Your task to perform on an android device: delete location history Image 0: 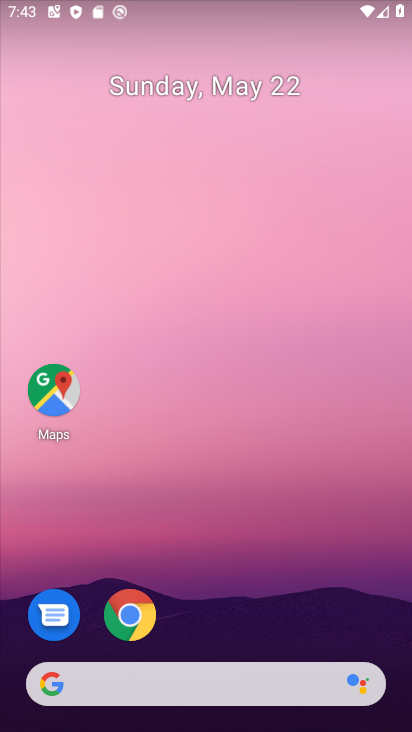
Step 0: drag from (243, 643) to (160, 3)
Your task to perform on an android device: delete location history Image 1: 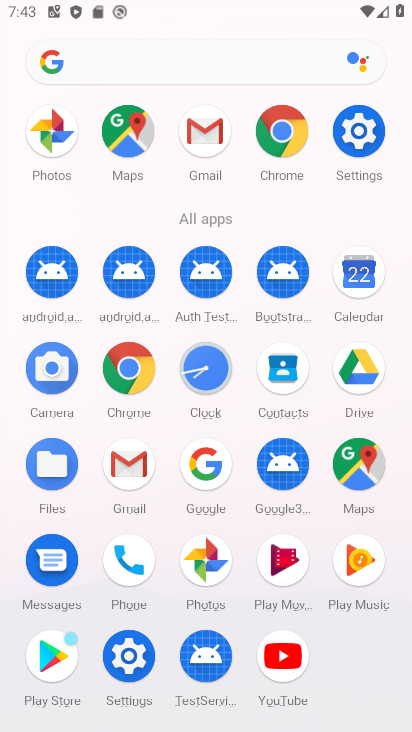
Step 1: click (358, 464)
Your task to perform on an android device: delete location history Image 2: 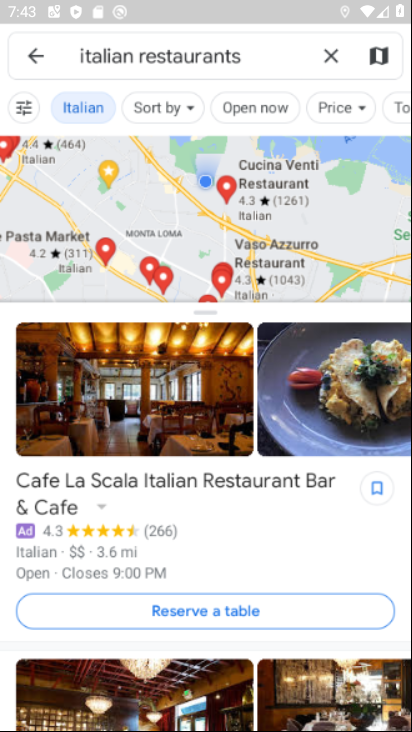
Step 2: click (25, 61)
Your task to perform on an android device: delete location history Image 3: 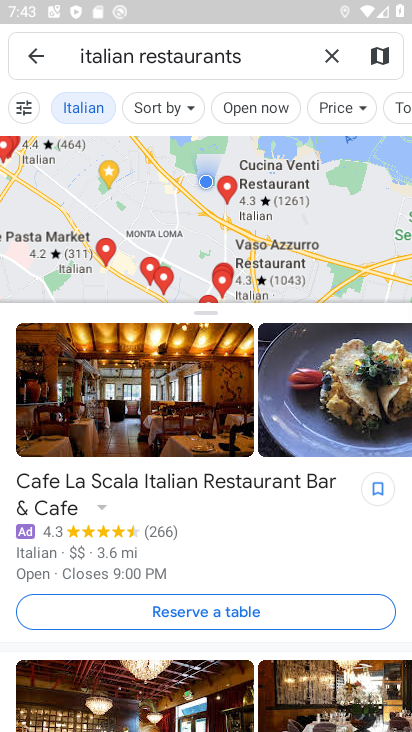
Step 3: click (34, 53)
Your task to perform on an android device: delete location history Image 4: 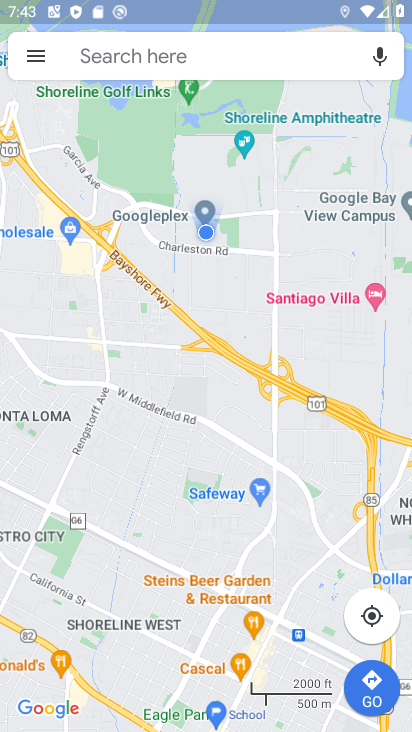
Step 4: click (34, 53)
Your task to perform on an android device: delete location history Image 5: 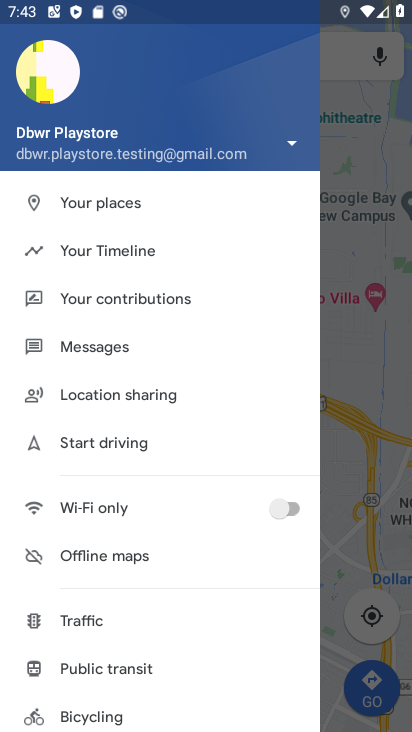
Step 5: drag from (192, 552) to (117, 234)
Your task to perform on an android device: delete location history Image 6: 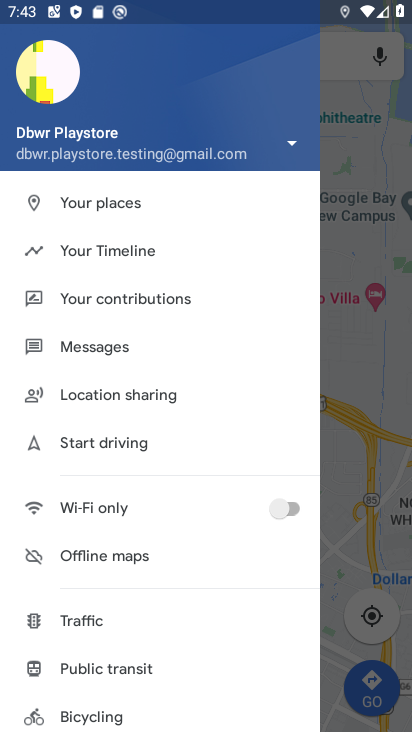
Step 6: drag from (217, 600) to (292, 91)
Your task to perform on an android device: delete location history Image 7: 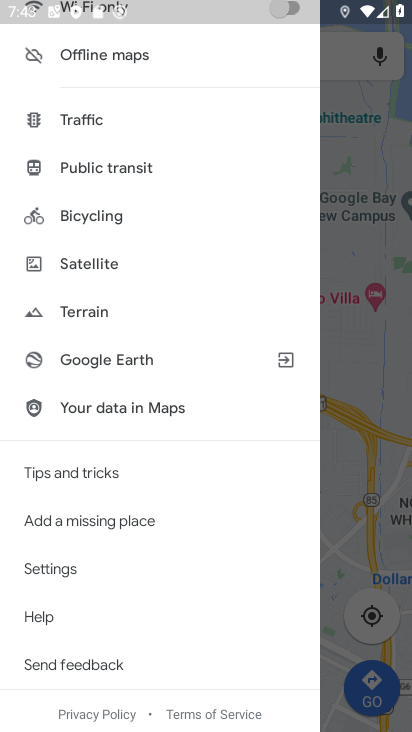
Step 7: click (46, 575)
Your task to perform on an android device: delete location history Image 8: 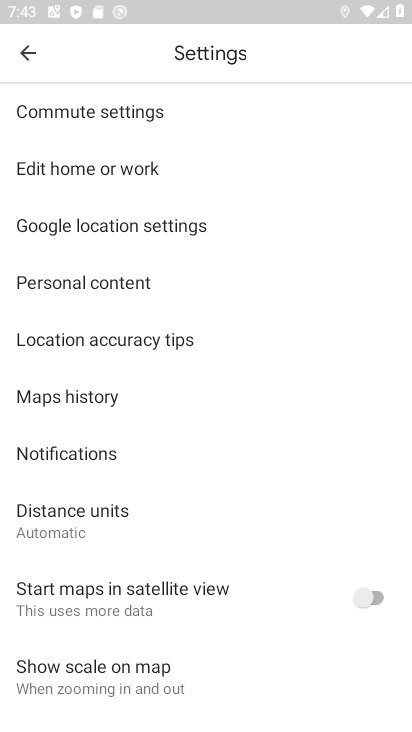
Step 8: click (25, 57)
Your task to perform on an android device: delete location history Image 9: 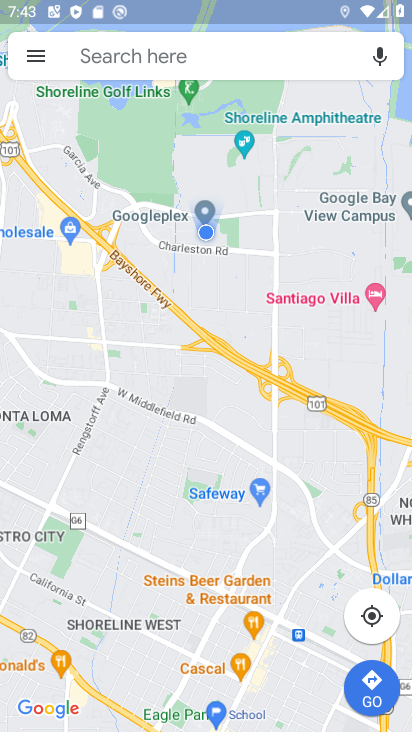
Step 9: click (25, 55)
Your task to perform on an android device: delete location history Image 10: 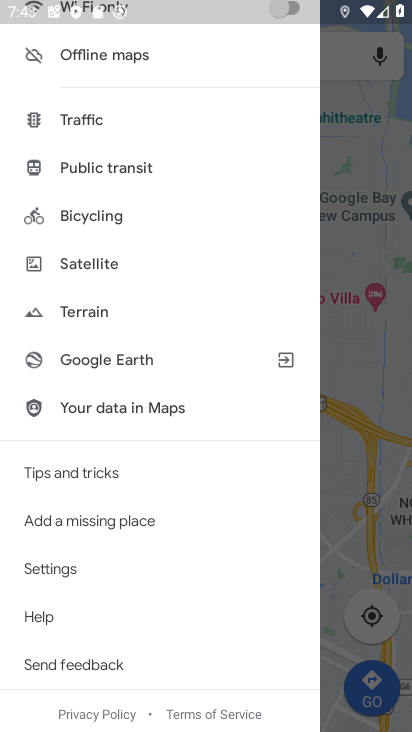
Step 10: drag from (94, 65) to (182, 398)
Your task to perform on an android device: delete location history Image 11: 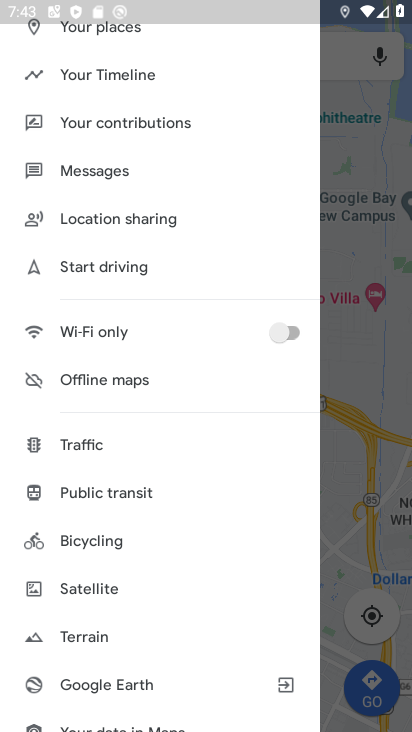
Step 11: click (131, 74)
Your task to perform on an android device: delete location history Image 12: 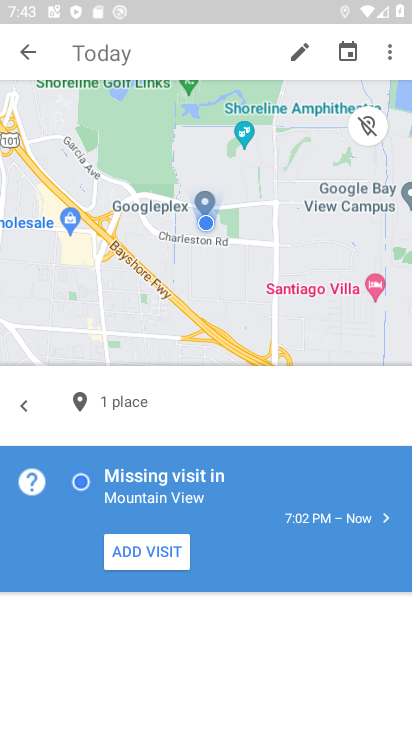
Step 12: click (390, 54)
Your task to perform on an android device: delete location history Image 13: 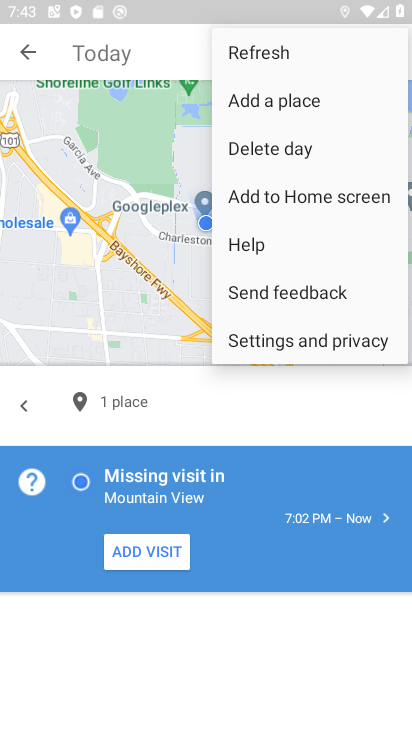
Step 13: click (269, 323)
Your task to perform on an android device: delete location history Image 14: 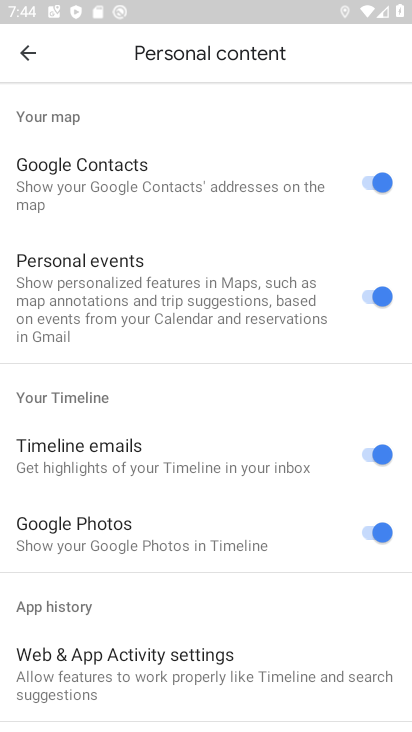
Step 14: drag from (313, 577) to (185, 22)
Your task to perform on an android device: delete location history Image 15: 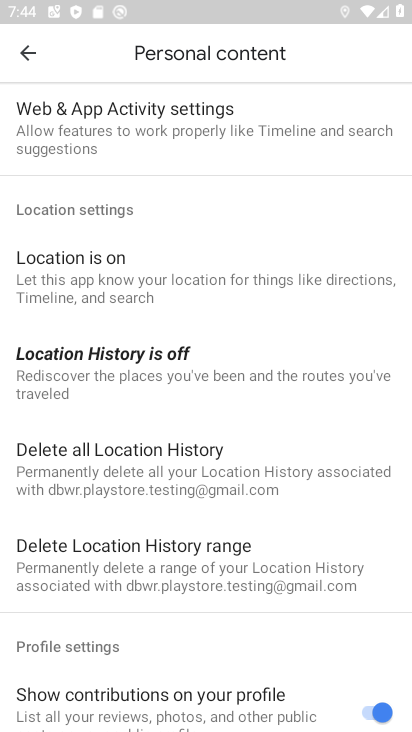
Step 15: click (66, 484)
Your task to perform on an android device: delete location history Image 16: 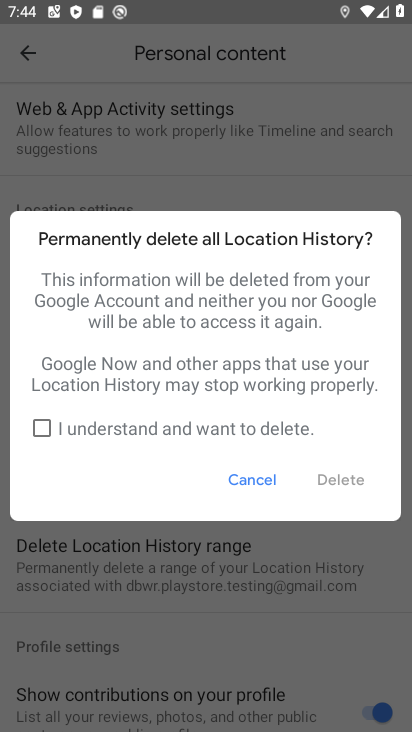
Step 16: click (44, 428)
Your task to perform on an android device: delete location history Image 17: 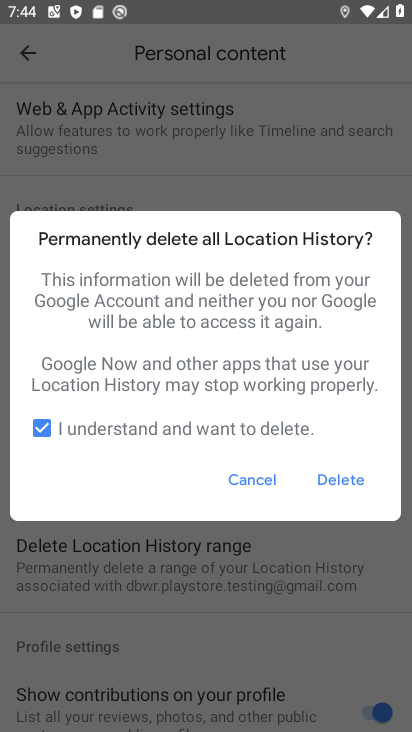
Step 17: click (342, 475)
Your task to perform on an android device: delete location history Image 18: 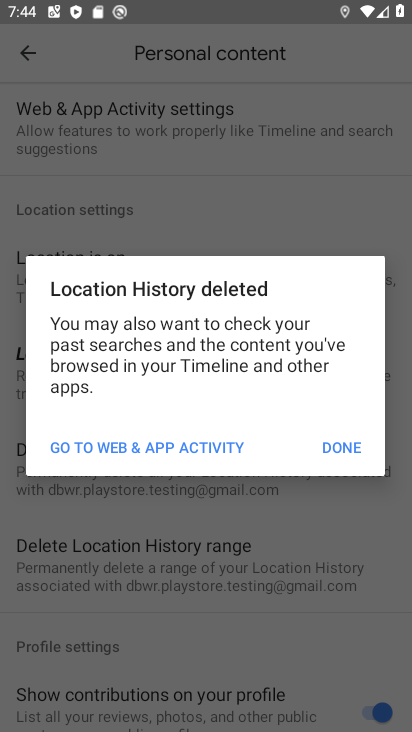
Step 18: click (346, 449)
Your task to perform on an android device: delete location history Image 19: 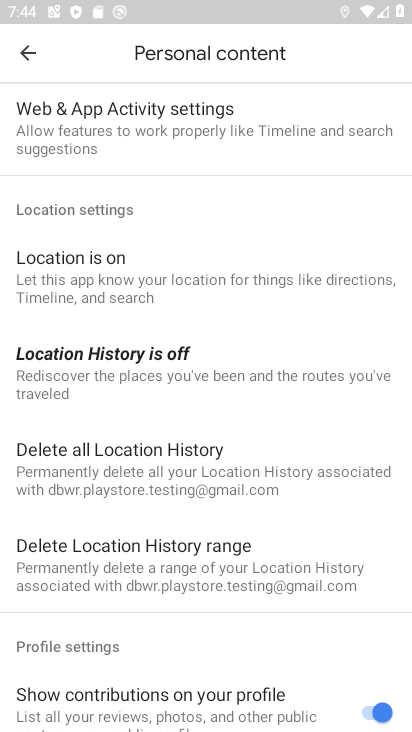
Step 19: task complete